Your task to perform on an android device: change the clock display to show seconds Image 0: 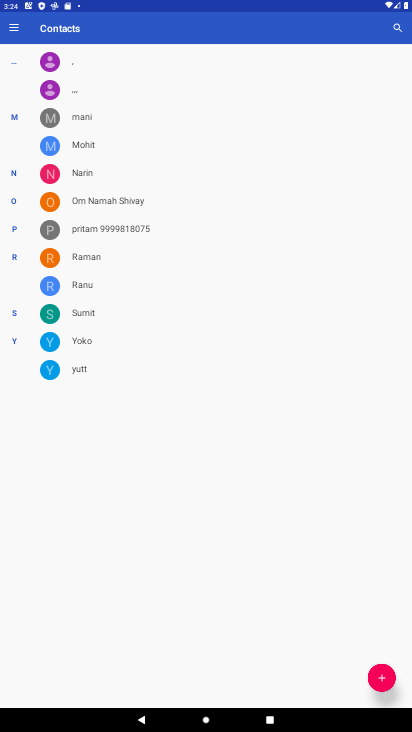
Step 0: press home button
Your task to perform on an android device: change the clock display to show seconds Image 1: 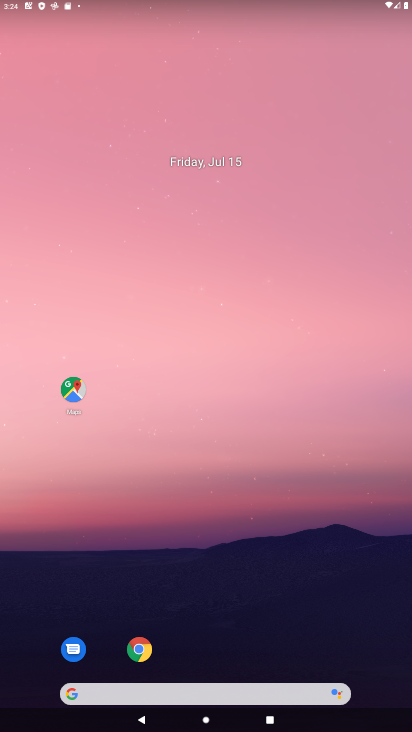
Step 1: drag from (253, 603) to (263, 188)
Your task to perform on an android device: change the clock display to show seconds Image 2: 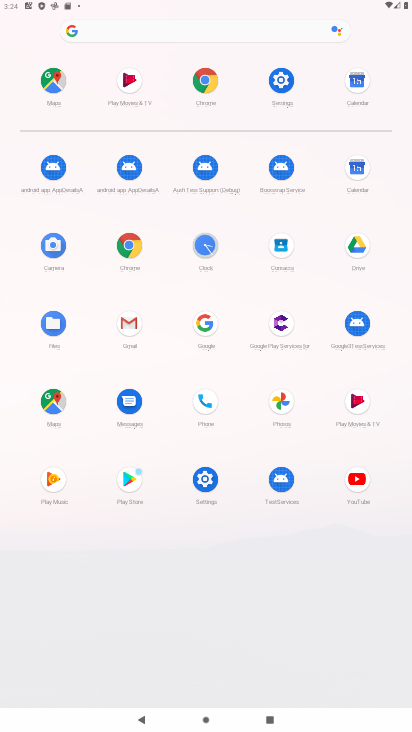
Step 2: click (204, 238)
Your task to perform on an android device: change the clock display to show seconds Image 3: 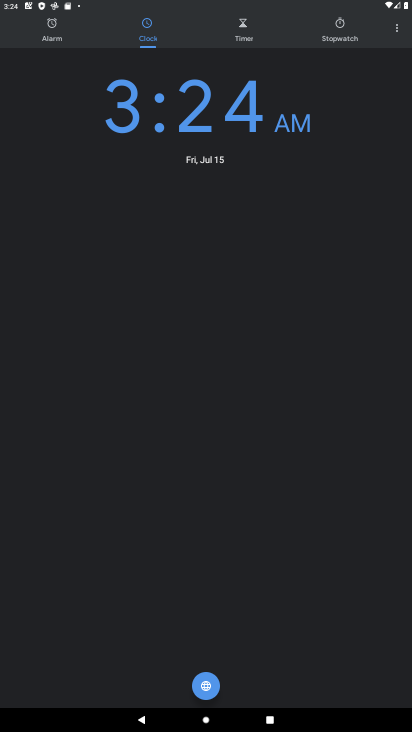
Step 3: click (401, 25)
Your task to perform on an android device: change the clock display to show seconds Image 4: 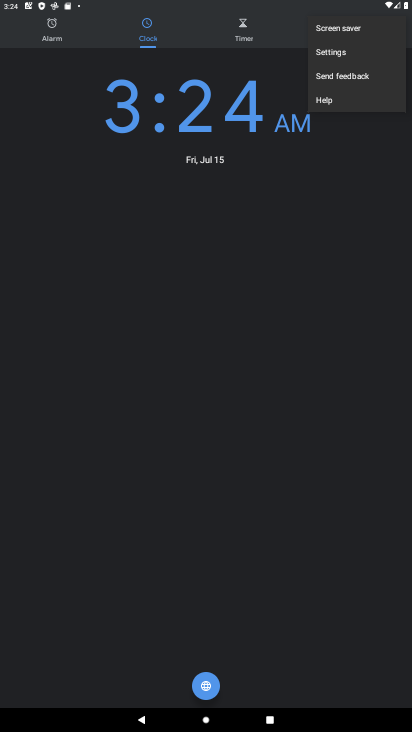
Step 4: click (338, 56)
Your task to perform on an android device: change the clock display to show seconds Image 5: 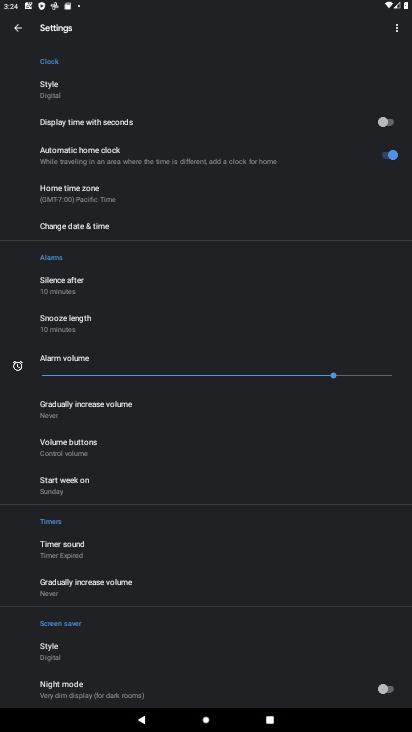
Step 5: click (391, 119)
Your task to perform on an android device: change the clock display to show seconds Image 6: 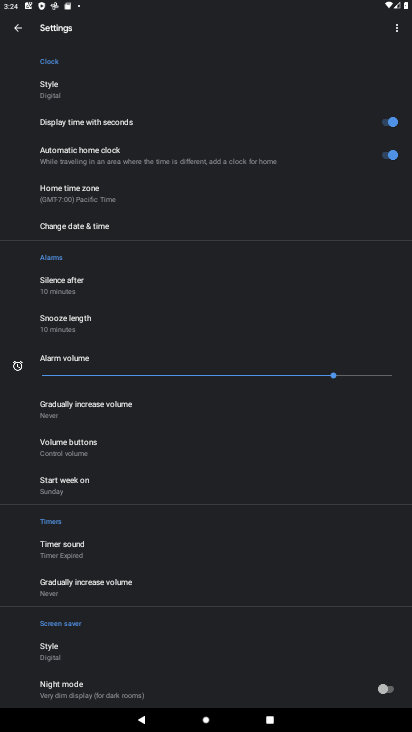
Step 6: task complete